Your task to perform on an android device: toggle pop-ups in chrome Image 0: 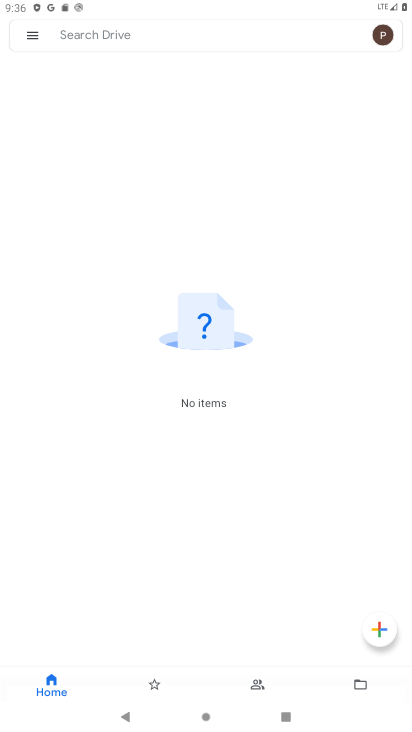
Step 0: press home button
Your task to perform on an android device: toggle pop-ups in chrome Image 1: 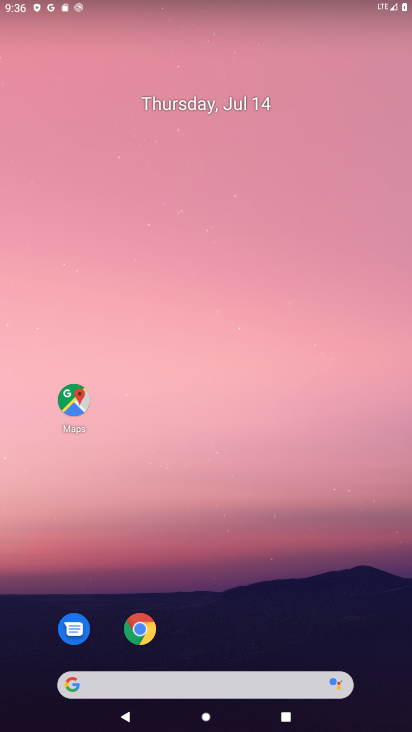
Step 1: click (135, 635)
Your task to perform on an android device: toggle pop-ups in chrome Image 2: 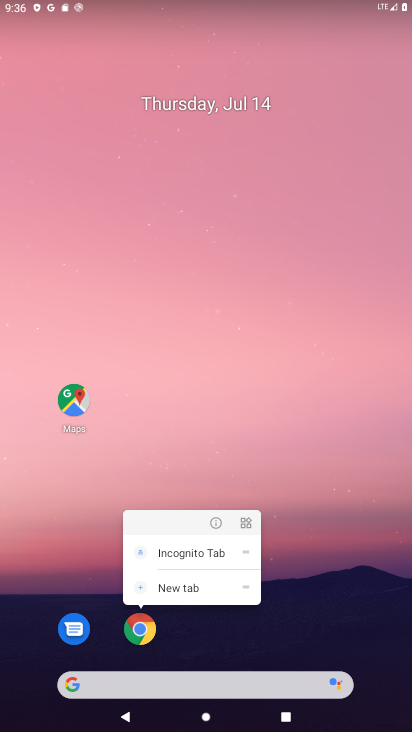
Step 2: click (141, 617)
Your task to perform on an android device: toggle pop-ups in chrome Image 3: 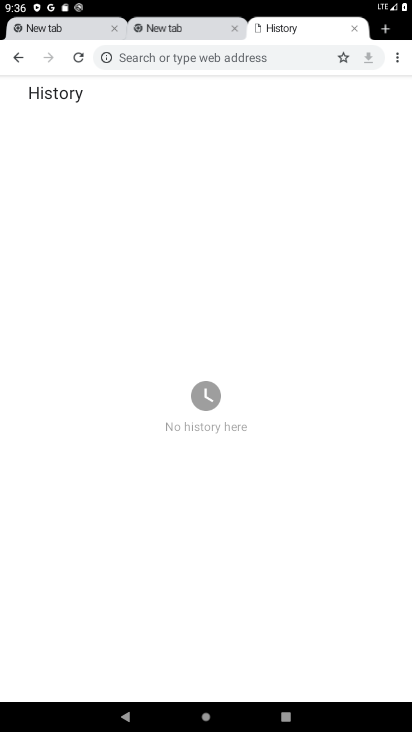
Step 3: click (392, 58)
Your task to perform on an android device: toggle pop-ups in chrome Image 4: 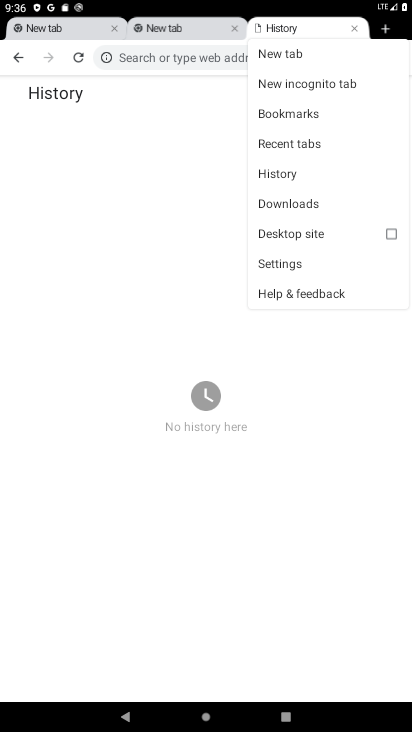
Step 4: click (313, 262)
Your task to perform on an android device: toggle pop-ups in chrome Image 5: 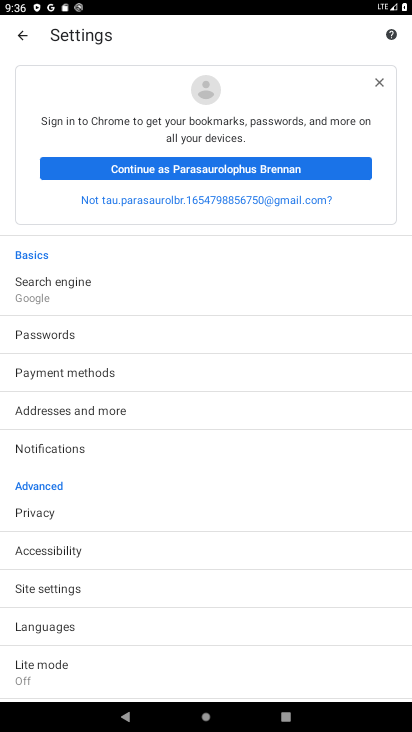
Step 5: click (56, 588)
Your task to perform on an android device: toggle pop-ups in chrome Image 6: 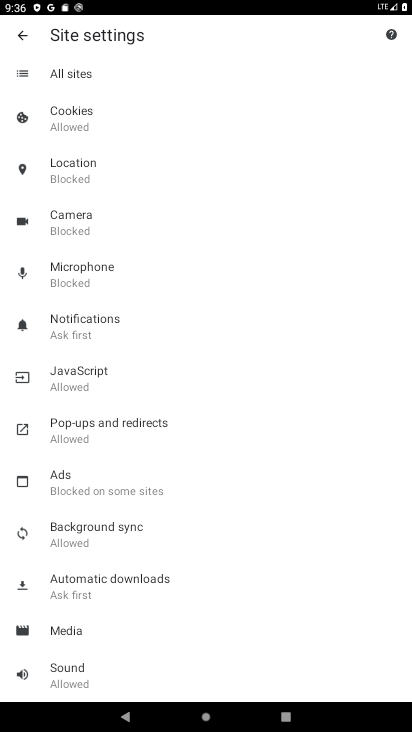
Step 6: click (92, 426)
Your task to perform on an android device: toggle pop-ups in chrome Image 7: 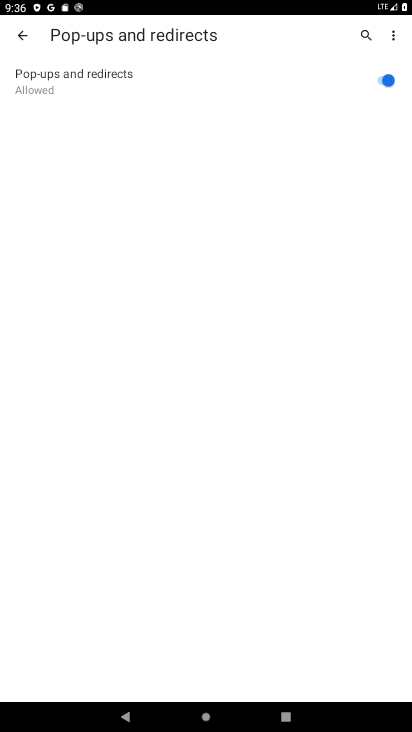
Step 7: click (390, 79)
Your task to perform on an android device: toggle pop-ups in chrome Image 8: 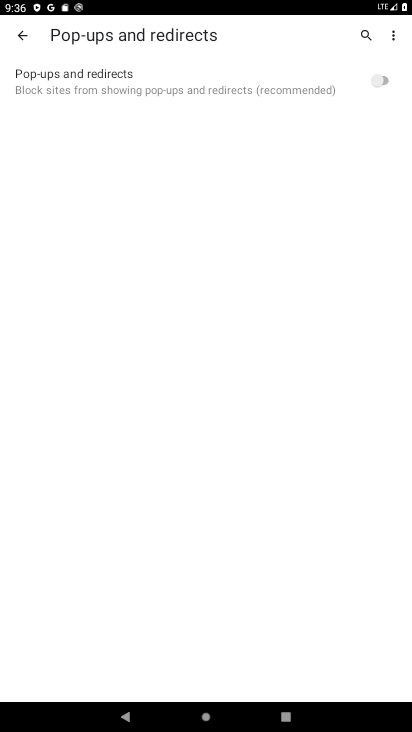
Step 8: task complete